Your task to perform on an android device: Open privacy settings Image 0: 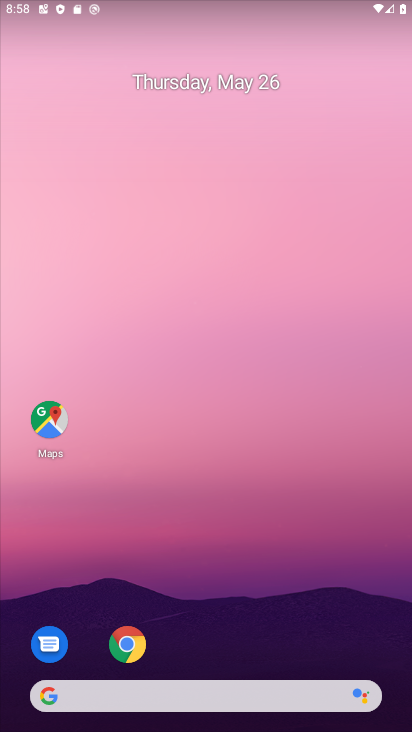
Step 0: drag from (207, 579) to (232, 18)
Your task to perform on an android device: Open privacy settings Image 1: 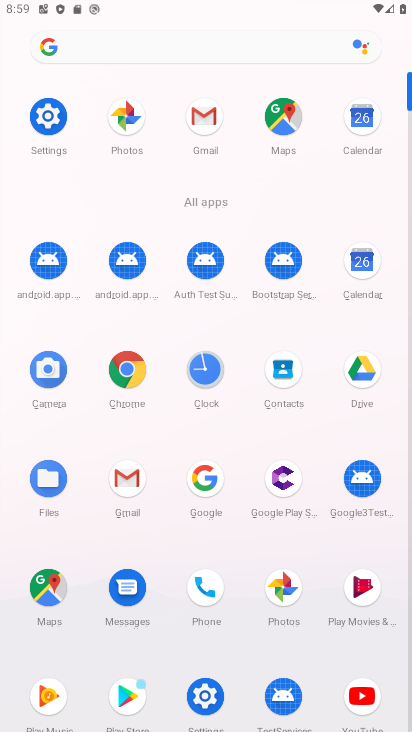
Step 1: click (50, 116)
Your task to perform on an android device: Open privacy settings Image 2: 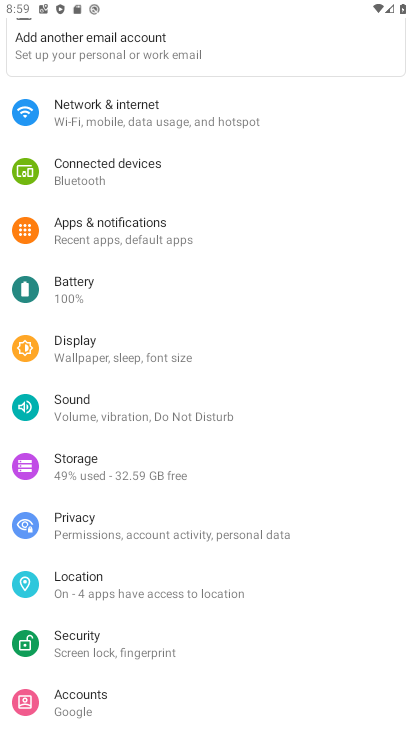
Step 2: click (106, 524)
Your task to perform on an android device: Open privacy settings Image 3: 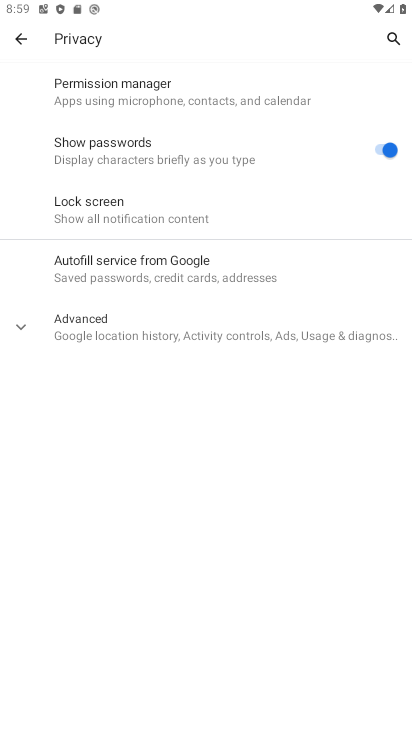
Step 3: task complete